Your task to perform on an android device: Open Yahoo.com Image 0: 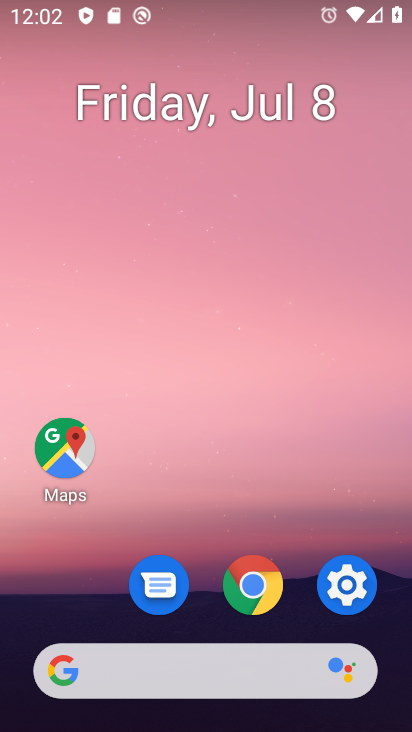
Step 0: click (238, 597)
Your task to perform on an android device: Open Yahoo.com Image 1: 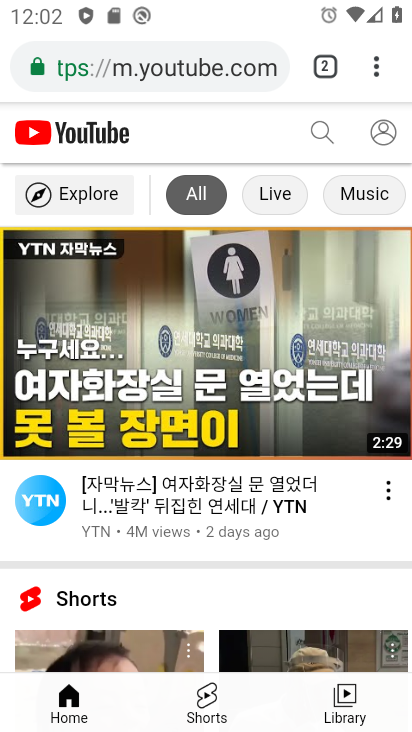
Step 1: click (323, 67)
Your task to perform on an android device: Open Yahoo.com Image 2: 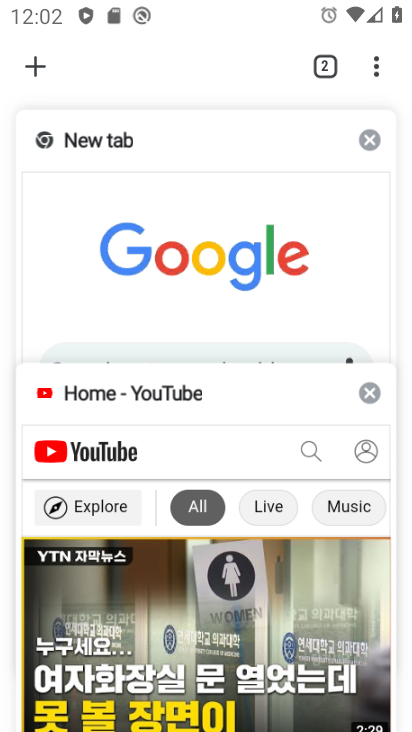
Step 2: click (39, 60)
Your task to perform on an android device: Open Yahoo.com Image 3: 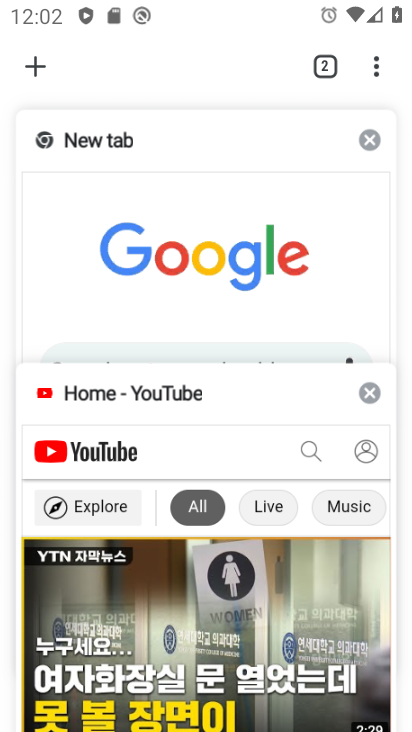
Step 3: click (29, 62)
Your task to perform on an android device: Open Yahoo.com Image 4: 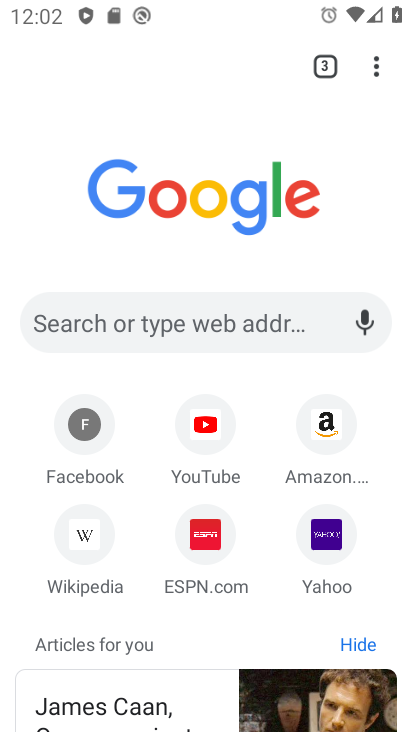
Step 4: click (334, 539)
Your task to perform on an android device: Open Yahoo.com Image 5: 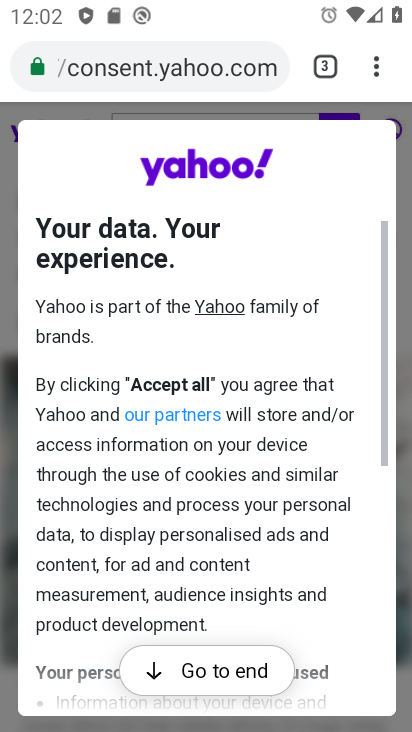
Step 5: drag from (305, 547) to (371, 315)
Your task to perform on an android device: Open Yahoo.com Image 6: 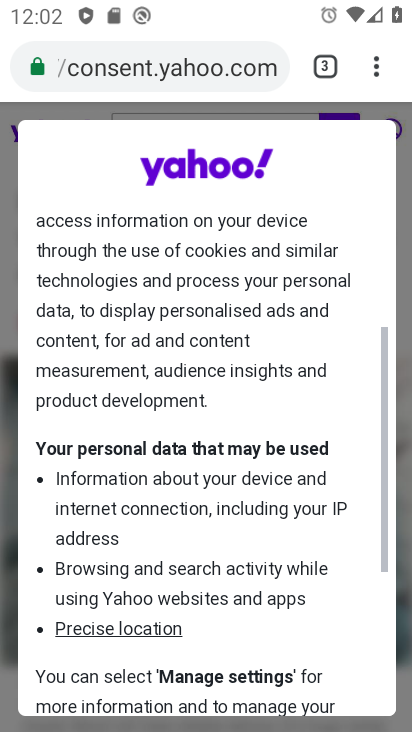
Step 6: drag from (256, 505) to (290, 304)
Your task to perform on an android device: Open Yahoo.com Image 7: 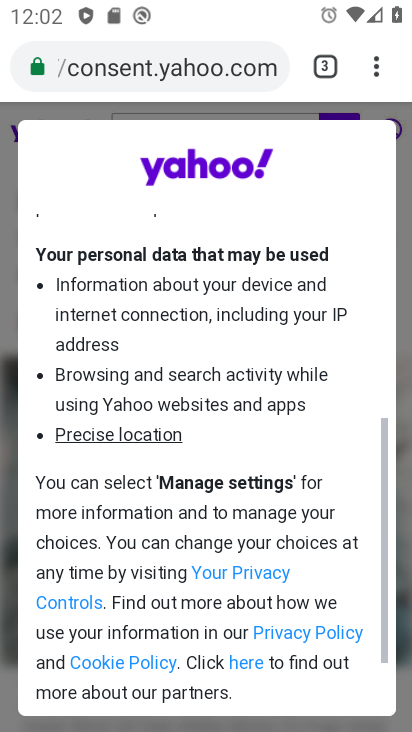
Step 7: drag from (164, 582) to (230, 354)
Your task to perform on an android device: Open Yahoo.com Image 8: 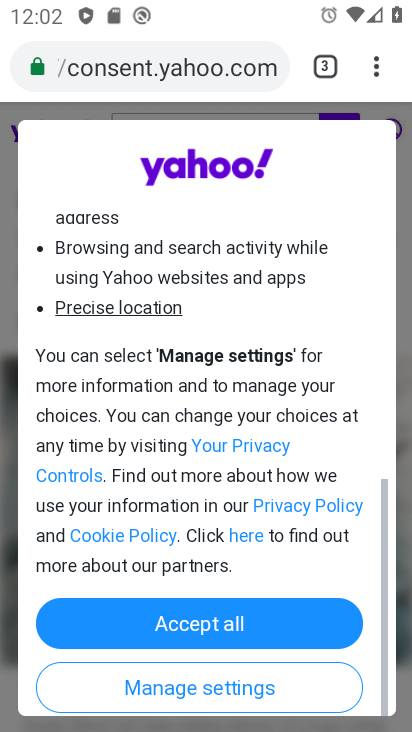
Step 8: click (216, 619)
Your task to perform on an android device: Open Yahoo.com Image 9: 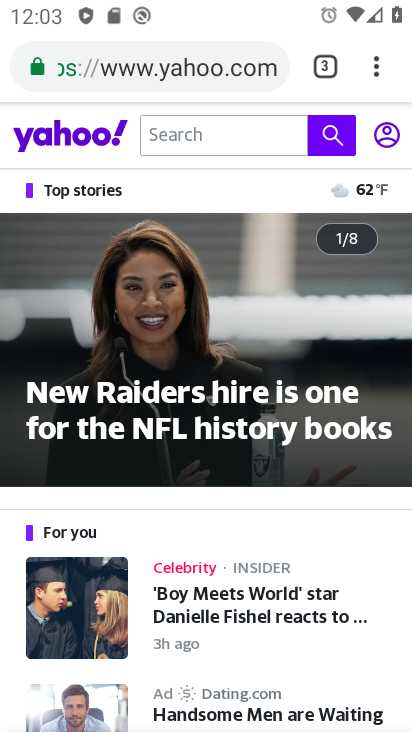
Step 9: task complete